Your task to perform on an android device: Show me recent news Image 0: 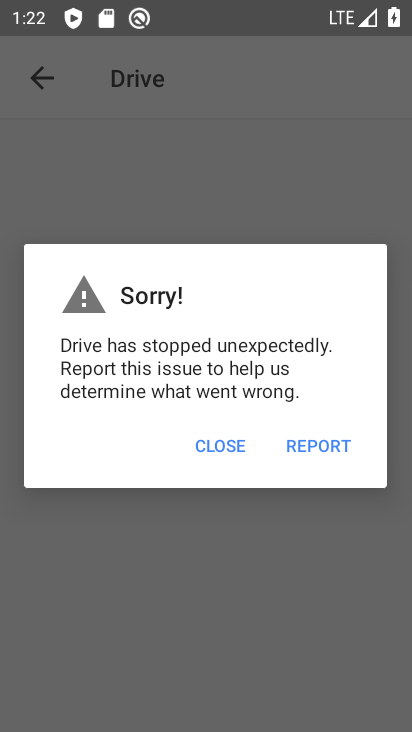
Step 0: press home button
Your task to perform on an android device: Show me recent news Image 1: 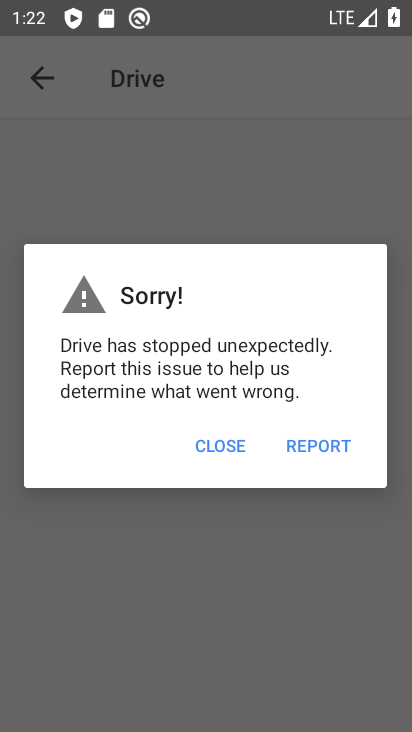
Step 1: press back button
Your task to perform on an android device: Show me recent news Image 2: 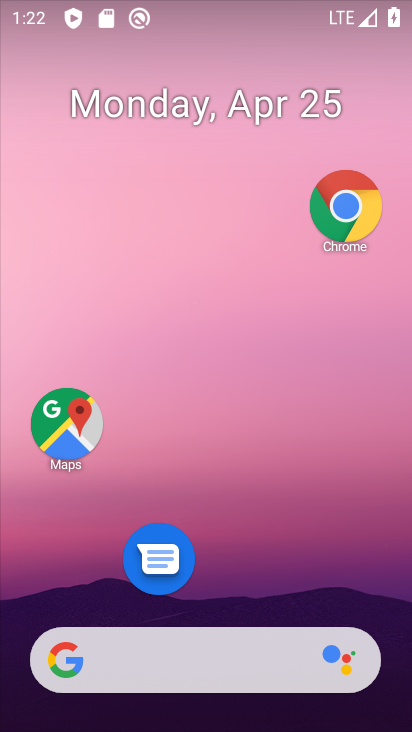
Step 2: click (156, 677)
Your task to perform on an android device: Show me recent news Image 3: 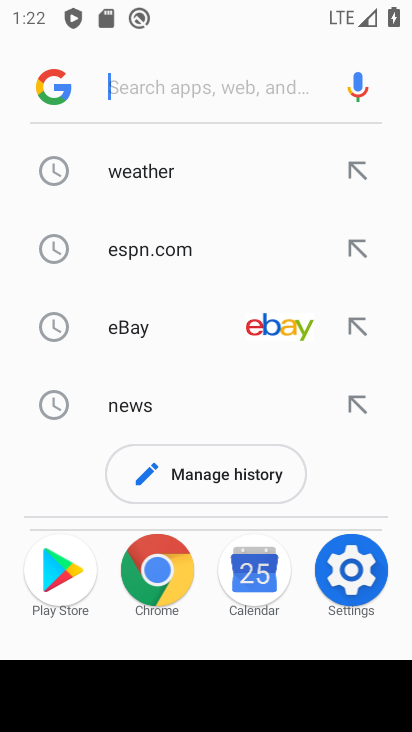
Step 3: type "recent news"
Your task to perform on an android device: Show me recent news Image 4: 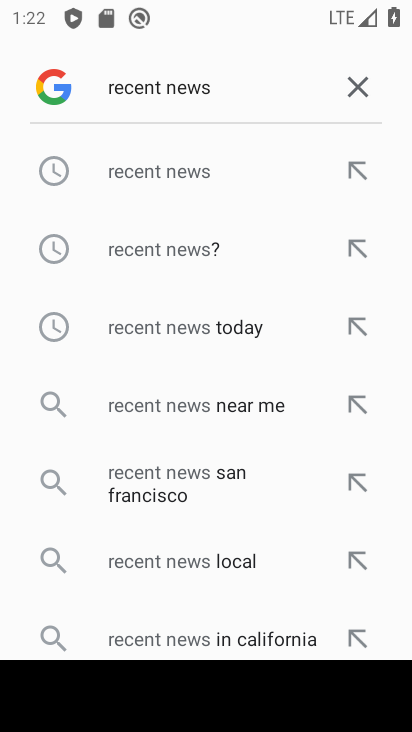
Step 4: click (167, 170)
Your task to perform on an android device: Show me recent news Image 5: 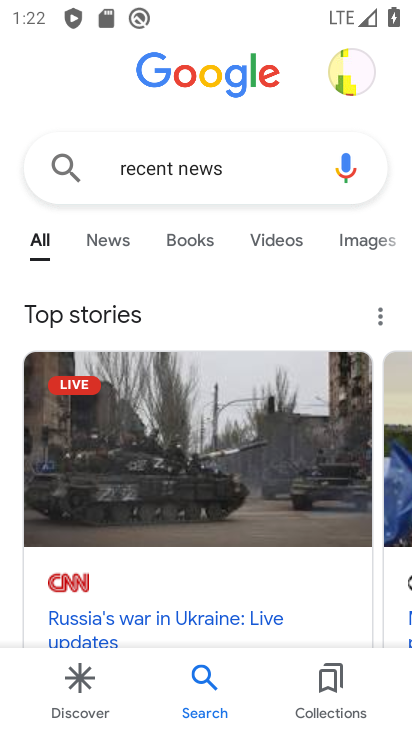
Step 5: task complete